Your task to perform on an android device: Go to Reddit.com Image 0: 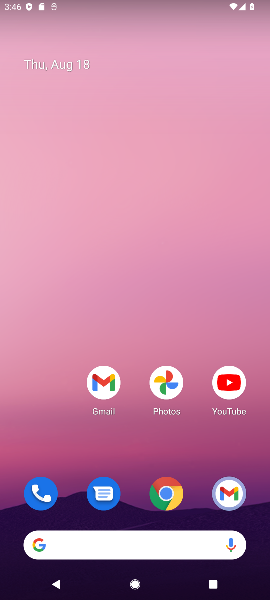
Step 0: drag from (130, 489) to (160, 0)
Your task to perform on an android device: Go to Reddit.com Image 1: 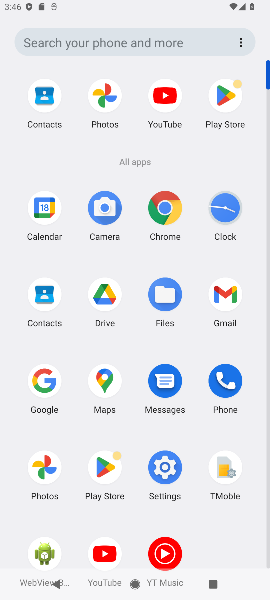
Step 1: click (167, 207)
Your task to perform on an android device: Go to Reddit.com Image 2: 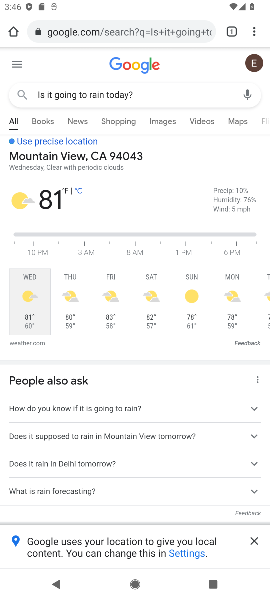
Step 2: click (169, 31)
Your task to perform on an android device: Go to Reddit.com Image 3: 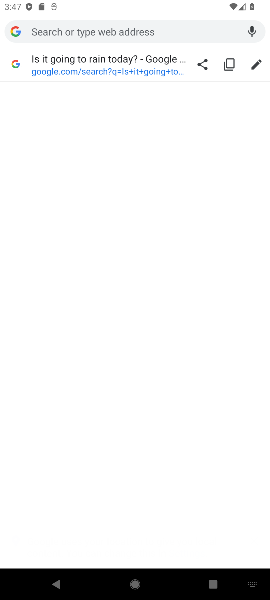
Step 3: type "Reddit.com"
Your task to perform on an android device: Go to Reddit.com Image 4: 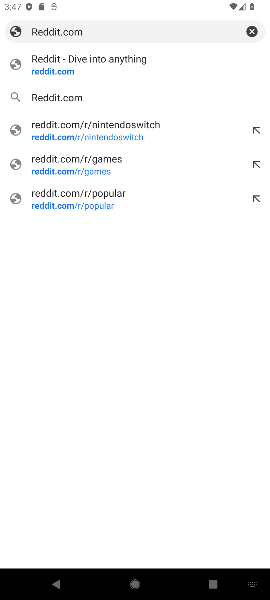
Step 4: click (44, 72)
Your task to perform on an android device: Go to Reddit.com Image 5: 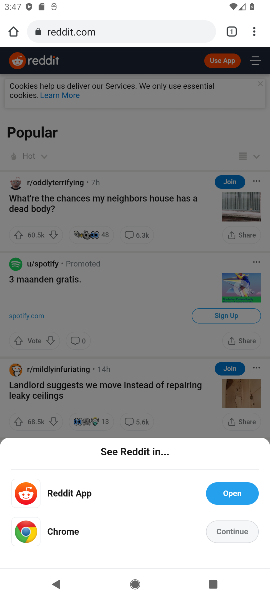
Step 5: task complete